Your task to perform on an android device: set an alarm Image 0: 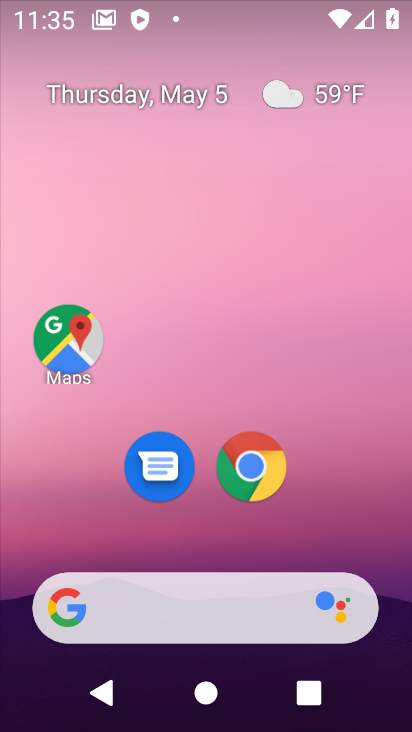
Step 0: drag from (209, 549) to (270, 156)
Your task to perform on an android device: set an alarm Image 1: 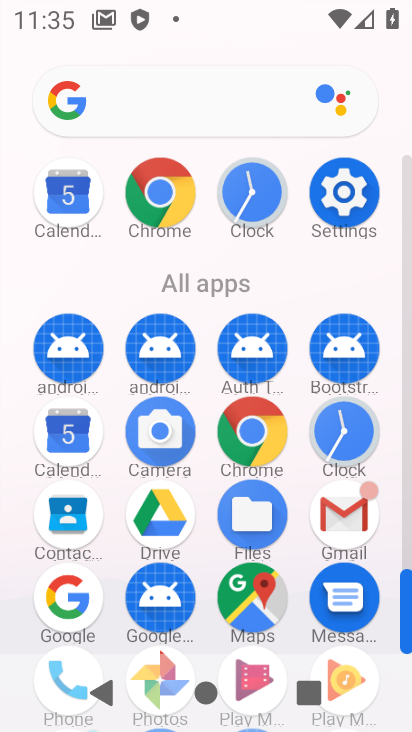
Step 1: click (339, 427)
Your task to perform on an android device: set an alarm Image 2: 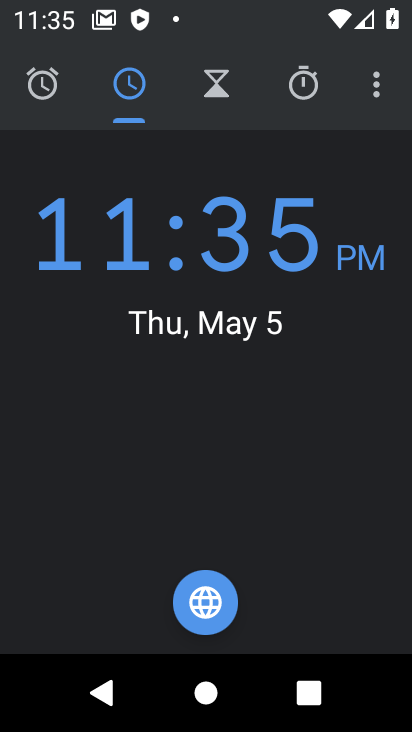
Step 2: click (59, 97)
Your task to perform on an android device: set an alarm Image 3: 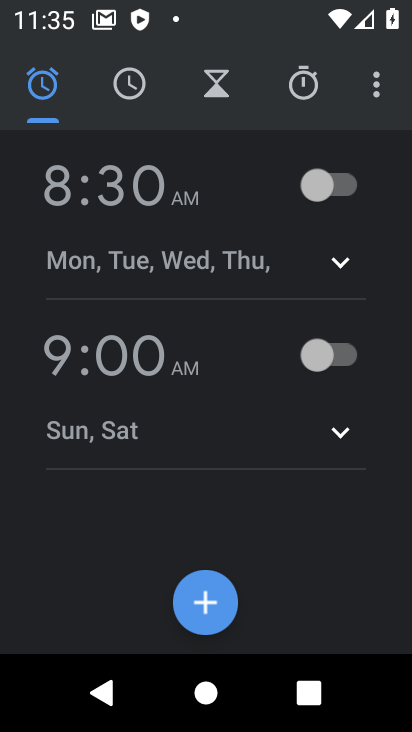
Step 3: click (327, 188)
Your task to perform on an android device: set an alarm Image 4: 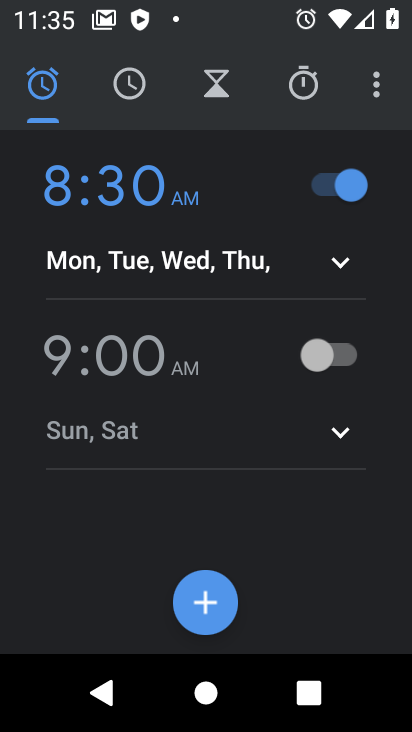
Step 4: task complete